Your task to perform on an android device: Empty the shopping cart on costco.com. Add macbook pro 13 inch to the cart on costco.com, then select checkout. Image 0: 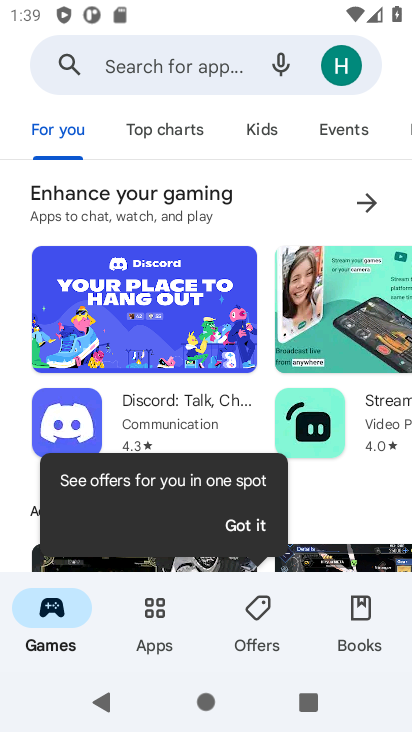
Step 0: press home button
Your task to perform on an android device: Empty the shopping cart on costco.com. Add macbook pro 13 inch to the cart on costco.com, then select checkout. Image 1: 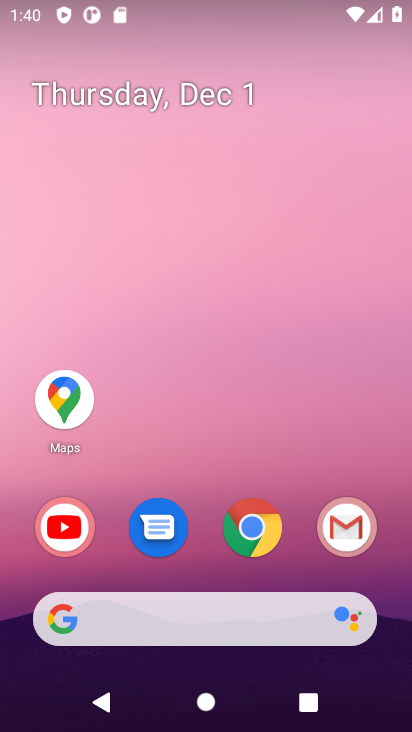
Step 1: click (244, 539)
Your task to perform on an android device: Empty the shopping cart on costco.com. Add macbook pro 13 inch to the cart on costco.com, then select checkout. Image 2: 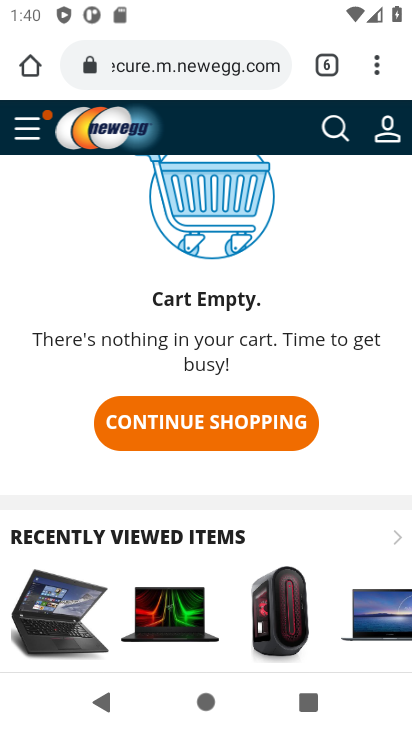
Step 2: click (224, 64)
Your task to perform on an android device: Empty the shopping cart on costco.com. Add macbook pro 13 inch to the cart on costco.com, then select checkout. Image 3: 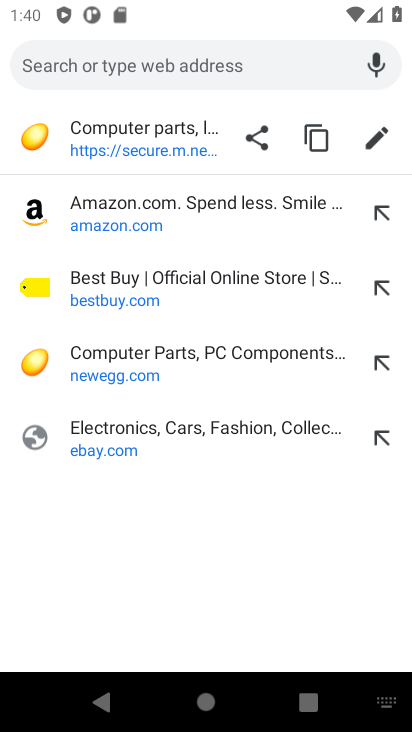
Step 3: type "costco.com"
Your task to perform on an android device: Empty the shopping cart on costco.com. Add macbook pro 13 inch to the cart on costco.com, then select checkout. Image 4: 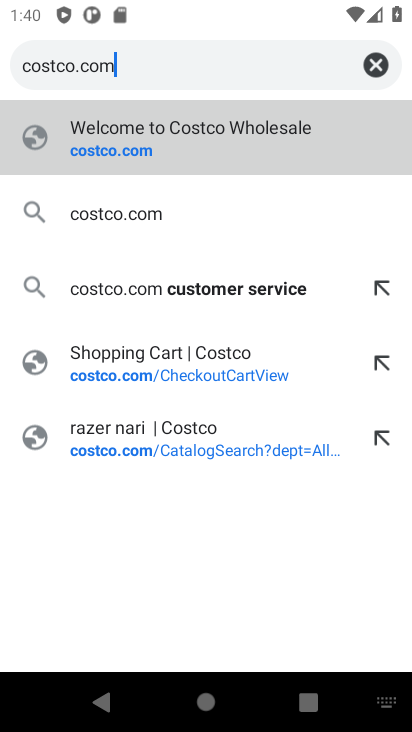
Step 4: click (126, 159)
Your task to perform on an android device: Empty the shopping cart on costco.com. Add macbook pro 13 inch to the cart on costco.com, then select checkout. Image 5: 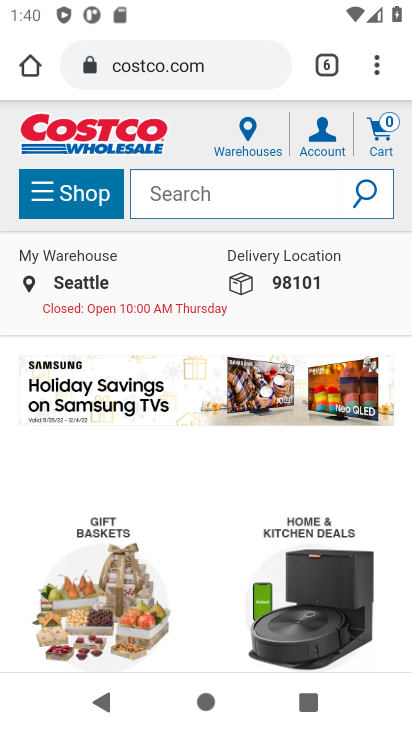
Step 5: click (382, 128)
Your task to perform on an android device: Empty the shopping cart on costco.com. Add macbook pro 13 inch to the cart on costco.com, then select checkout. Image 6: 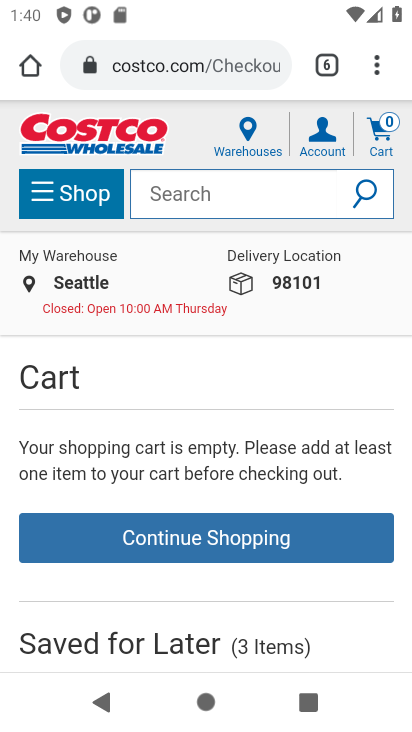
Step 6: click (174, 193)
Your task to perform on an android device: Empty the shopping cart on costco.com. Add macbook pro 13 inch to the cart on costco.com, then select checkout. Image 7: 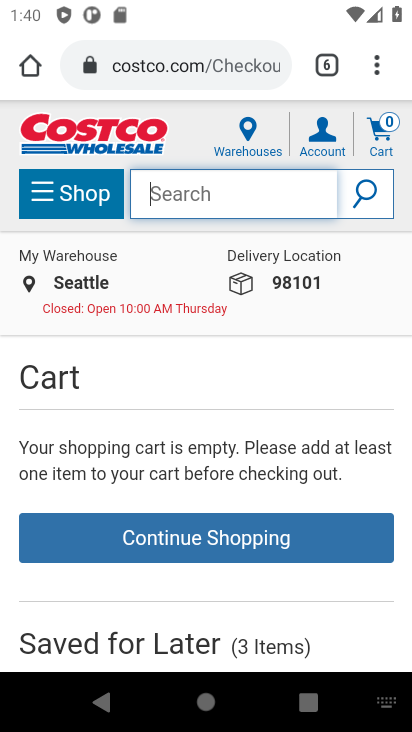
Step 7: type "macbook pro 13 inch"
Your task to perform on an android device: Empty the shopping cart on costco.com. Add macbook pro 13 inch to the cart on costco.com, then select checkout. Image 8: 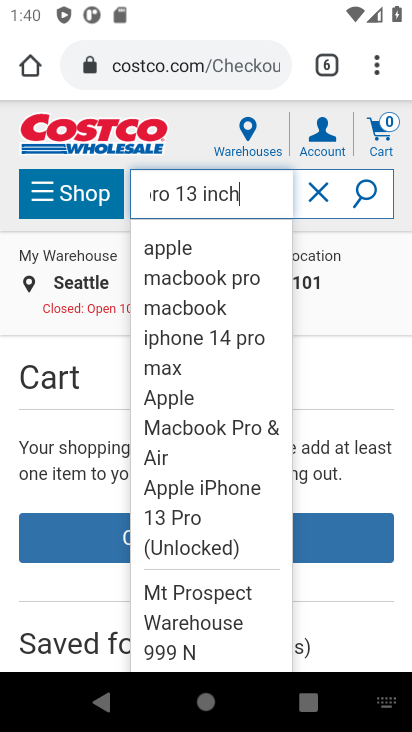
Step 8: click (377, 194)
Your task to perform on an android device: Empty the shopping cart on costco.com. Add macbook pro 13 inch to the cart on costco.com, then select checkout. Image 9: 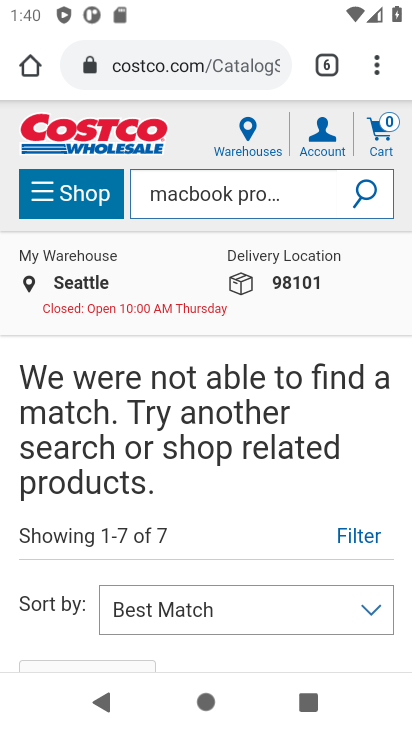
Step 9: task complete